Your task to perform on an android device: find photos in the google photos app Image 0: 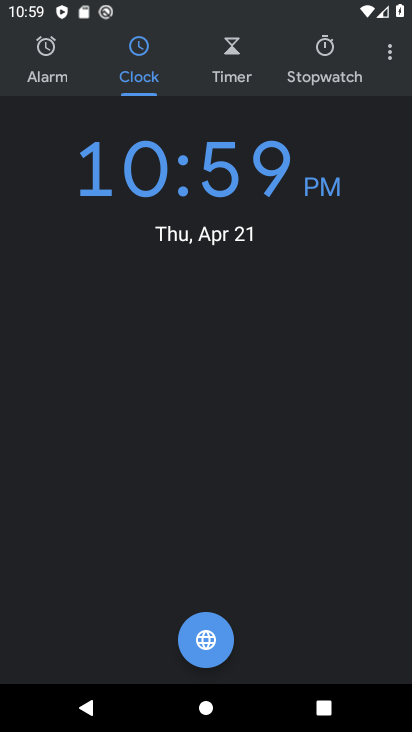
Step 0: press home button
Your task to perform on an android device: find photos in the google photos app Image 1: 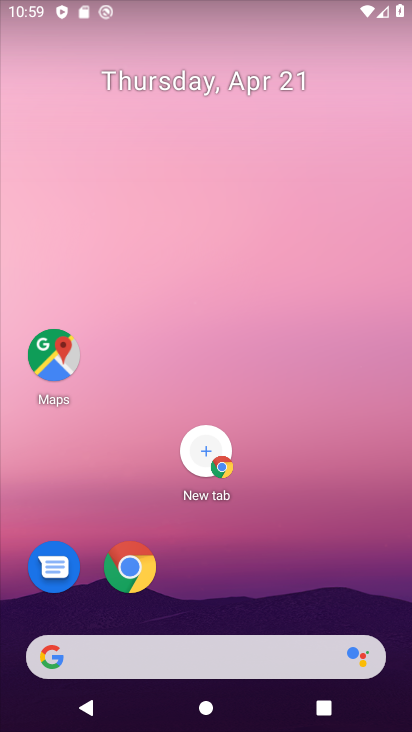
Step 1: drag from (158, 618) to (238, 6)
Your task to perform on an android device: find photos in the google photos app Image 2: 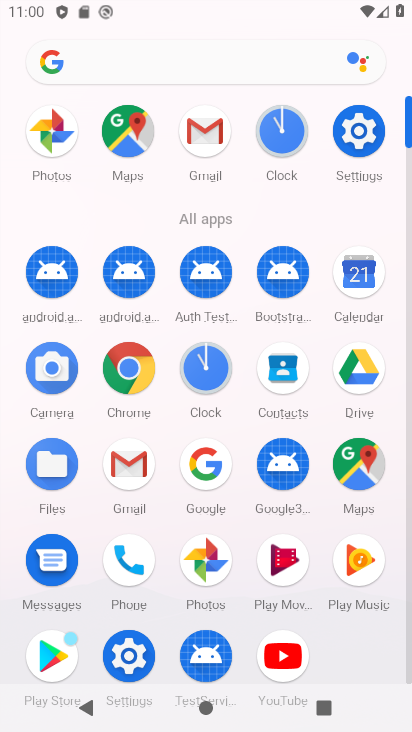
Step 2: click (35, 125)
Your task to perform on an android device: find photos in the google photos app Image 3: 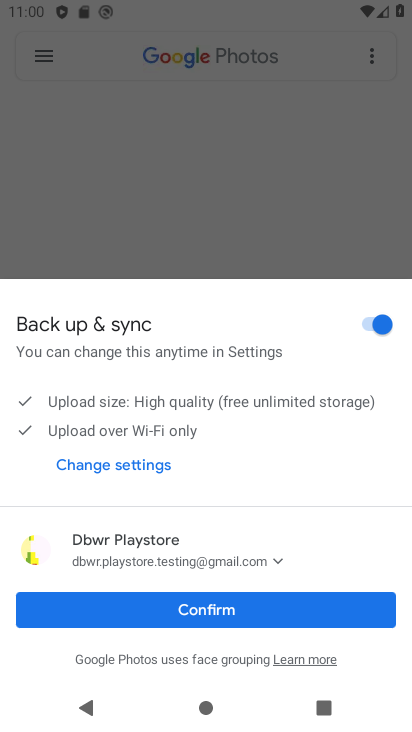
Step 3: click (146, 466)
Your task to perform on an android device: find photos in the google photos app Image 4: 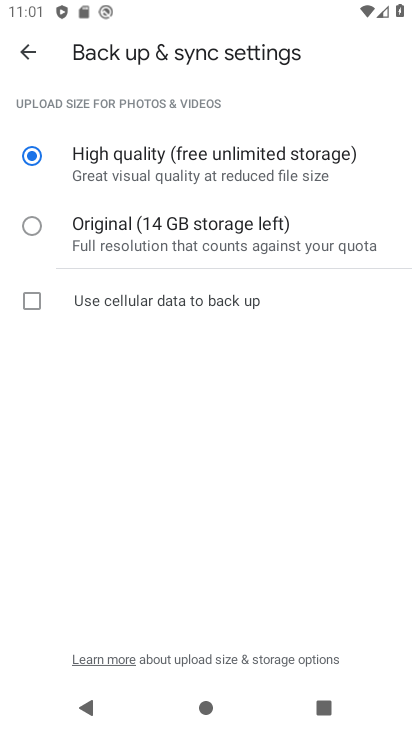
Step 4: click (22, 56)
Your task to perform on an android device: find photos in the google photos app Image 5: 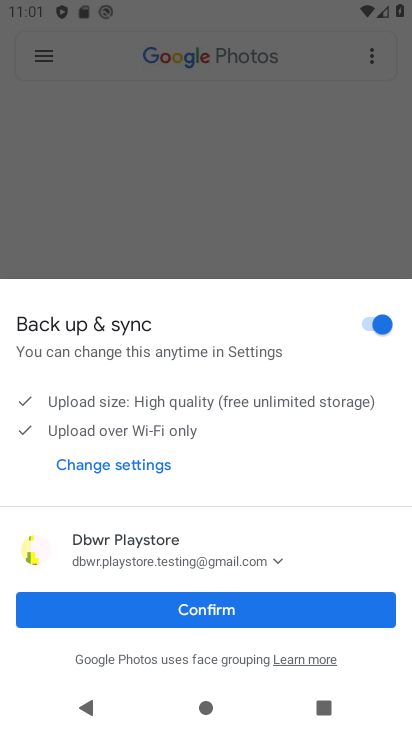
Step 5: click (130, 136)
Your task to perform on an android device: find photos in the google photos app Image 6: 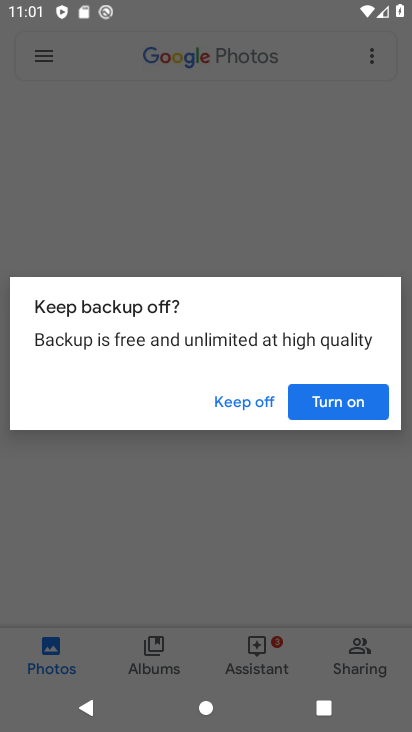
Step 6: click (252, 410)
Your task to perform on an android device: find photos in the google photos app Image 7: 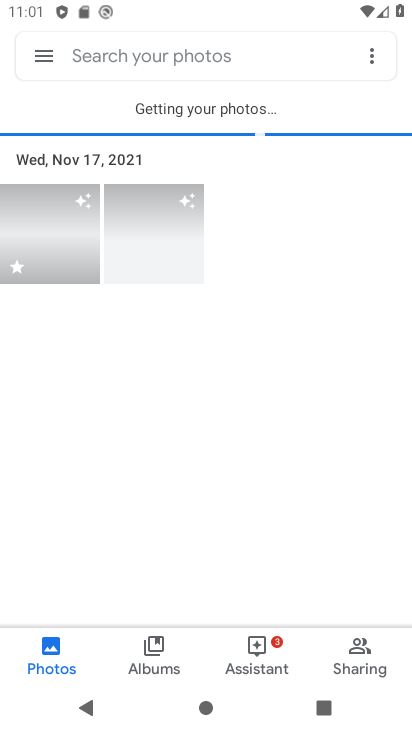
Step 7: task complete